Your task to perform on an android device: Open network settings Image 0: 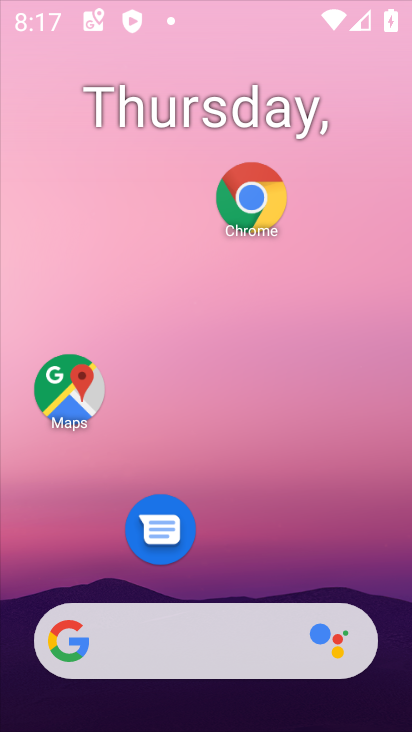
Step 0: drag from (239, 568) to (273, 48)
Your task to perform on an android device: Open network settings Image 1: 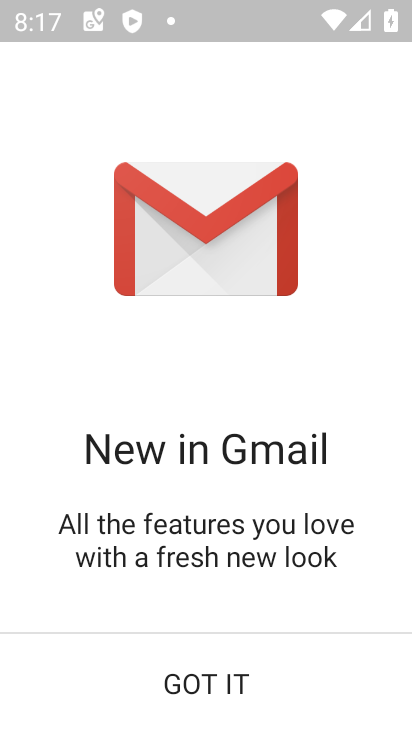
Step 1: click (213, 702)
Your task to perform on an android device: Open network settings Image 2: 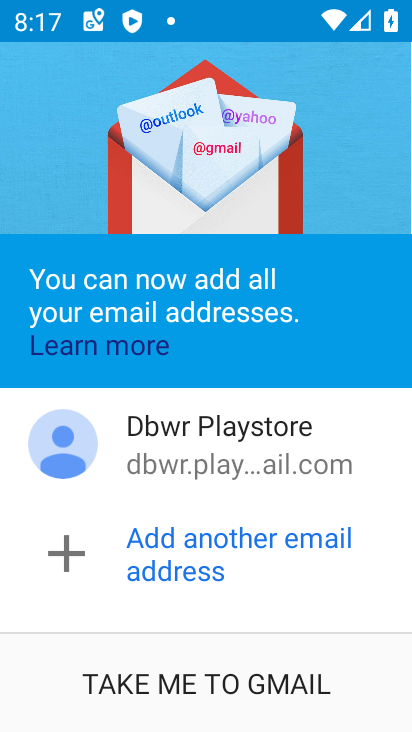
Step 2: click (215, 692)
Your task to perform on an android device: Open network settings Image 3: 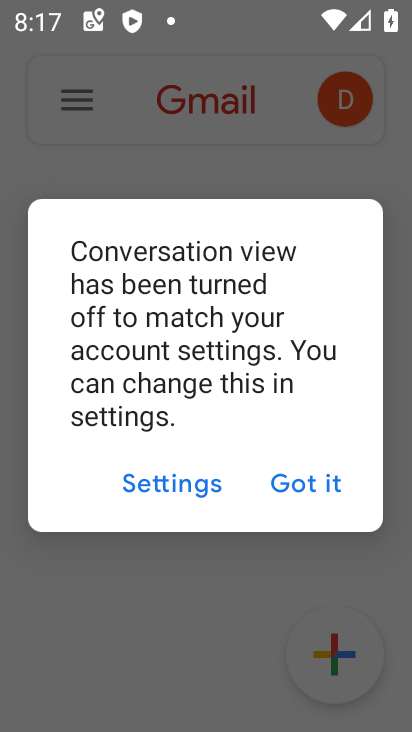
Step 3: press home button
Your task to perform on an android device: Open network settings Image 4: 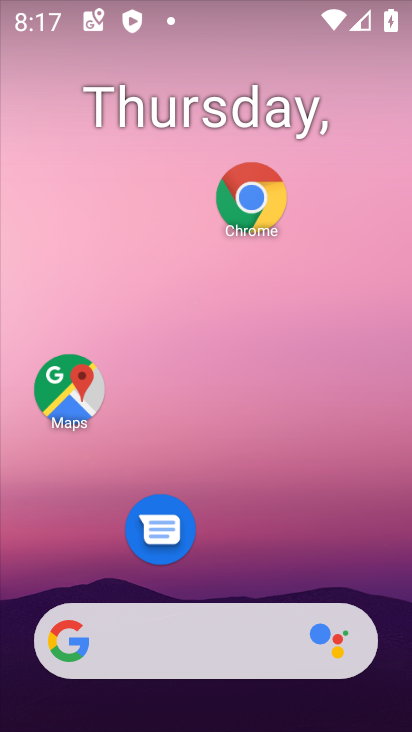
Step 4: drag from (213, 592) to (239, 210)
Your task to perform on an android device: Open network settings Image 5: 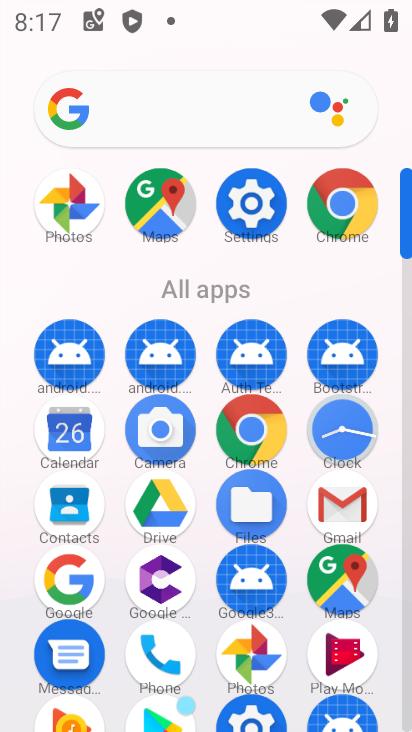
Step 5: click (254, 200)
Your task to perform on an android device: Open network settings Image 6: 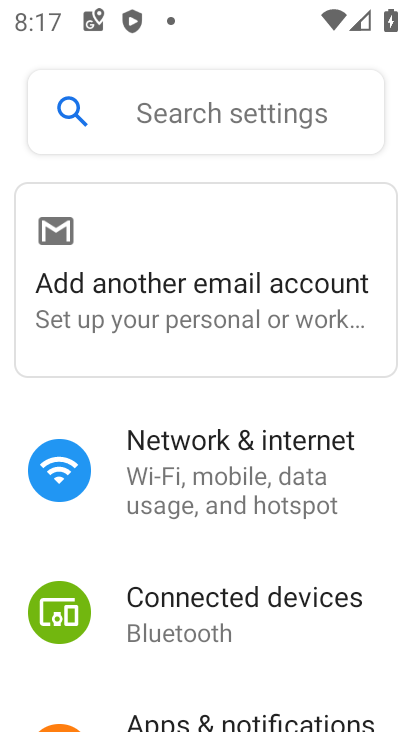
Step 6: click (188, 481)
Your task to perform on an android device: Open network settings Image 7: 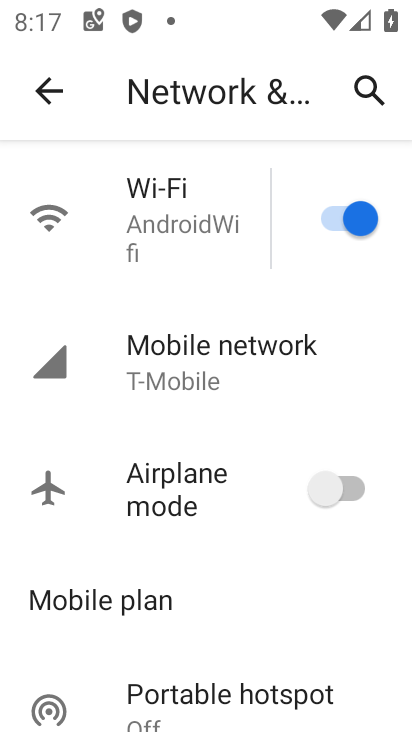
Step 7: click (123, 355)
Your task to perform on an android device: Open network settings Image 8: 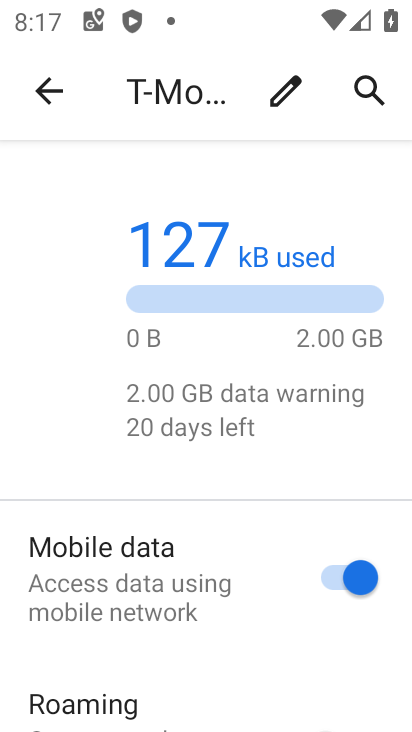
Step 8: task complete